Your task to perform on an android device: toggle translation in the chrome app Image 0: 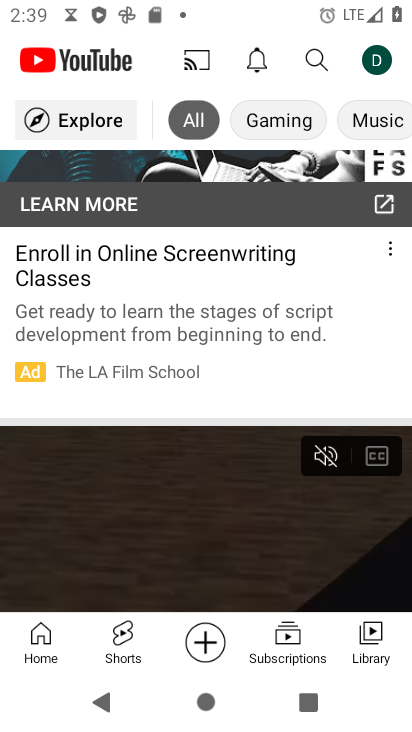
Step 0: press home button
Your task to perform on an android device: toggle translation in the chrome app Image 1: 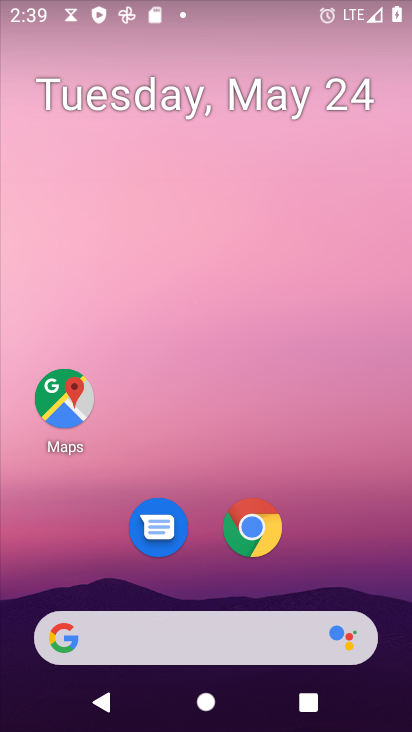
Step 1: click (248, 535)
Your task to perform on an android device: toggle translation in the chrome app Image 2: 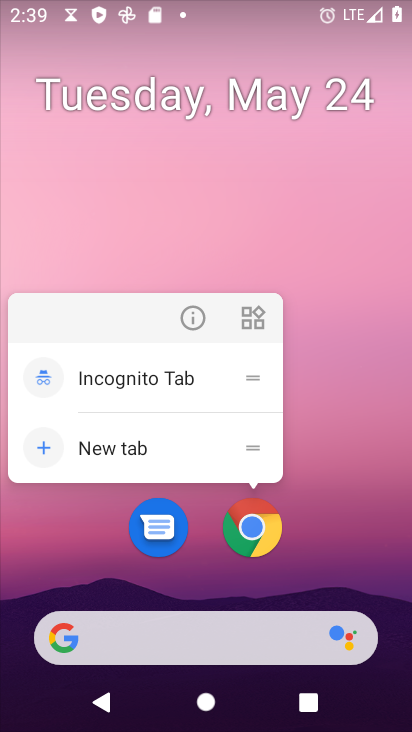
Step 2: click (251, 542)
Your task to perform on an android device: toggle translation in the chrome app Image 3: 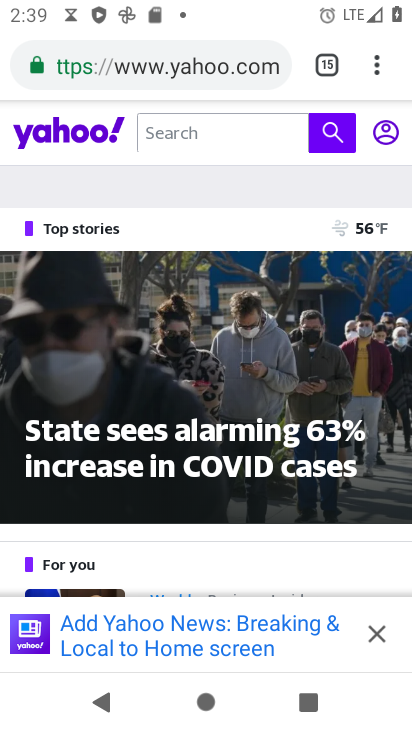
Step 3: drag from (376, 63) to (226, 576)
Your task to perform on an android device: toggle translation in the chrome app Image 4: 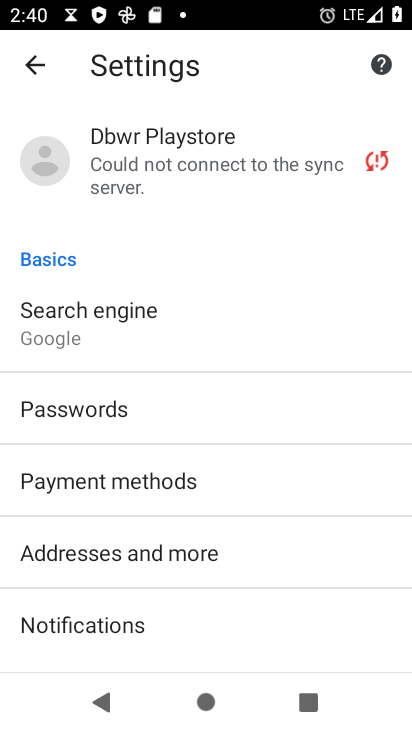
Step 4: drag from (227, 606) to (253, 281)
Your task to perform on an android device: toggle translation in the chrome app Image 5: 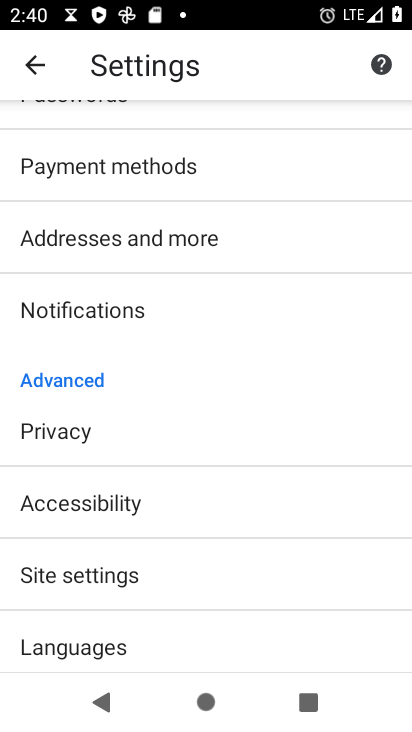
Step 5: click (164, 641)
Your task to perform on an android device: toggle translation in the chrome app Image 6: 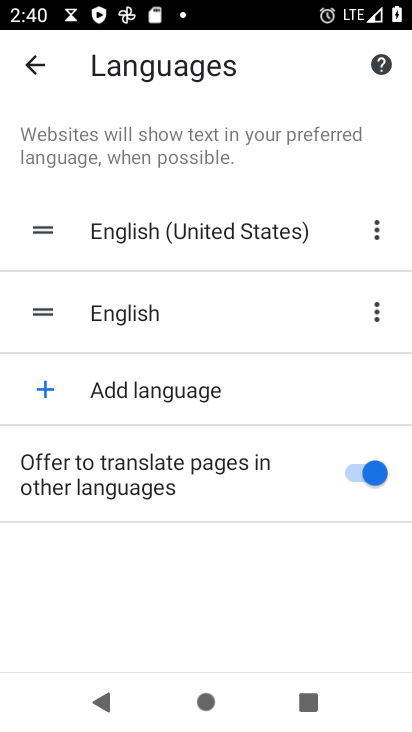
Step 6: click (355, 475)
Your task to perform on an android device: toggle translation in the chrome app Image 7: 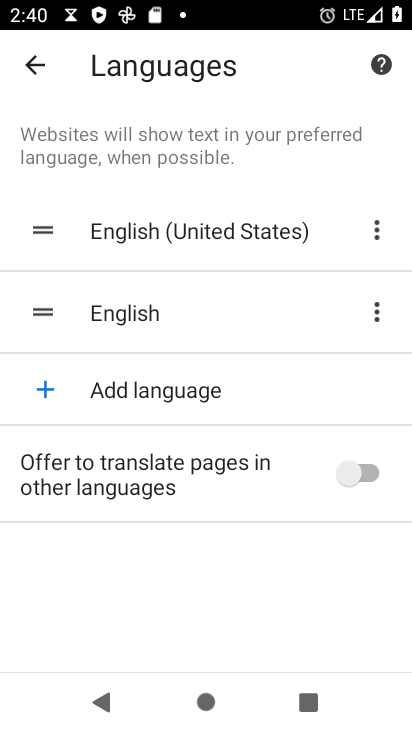
Step 7: task complete